Your task to perform on an android device: Clear the shopping cart on walmart.com. Image 0: 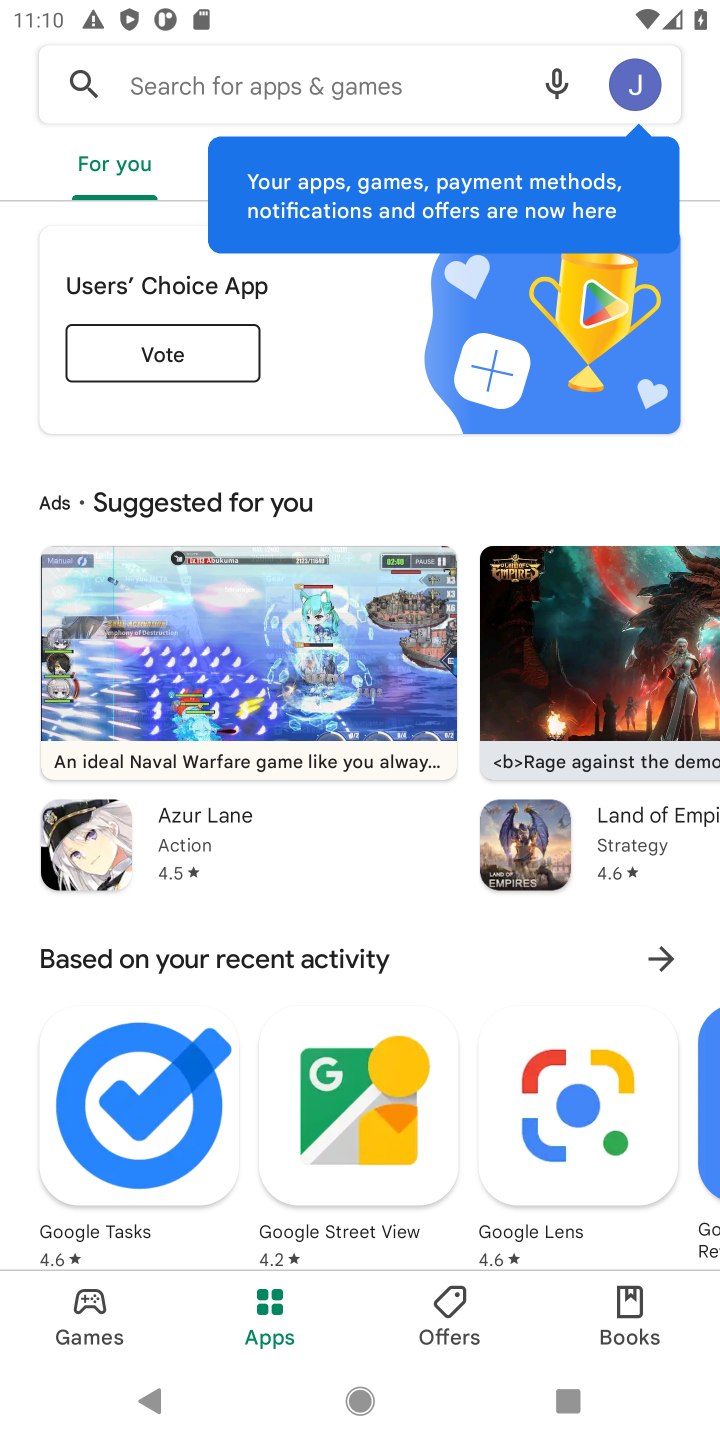
Step 0: press home button
Your task to perform on an android device: Clear the shopping cart on walmart.com. Image 1: 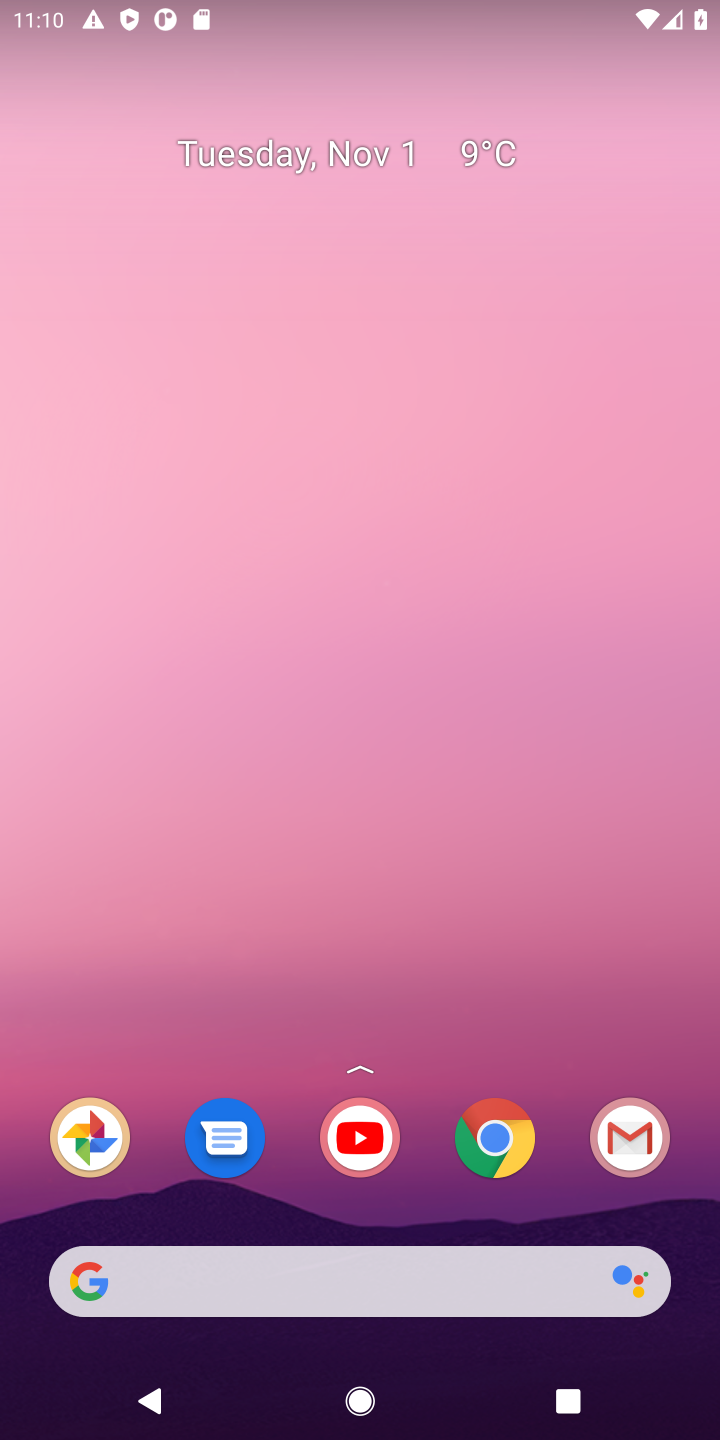
Step 1: click (221, 1270)
Your task to perform on an android device: Clear the shopping cart on walmart.com. Image 2: 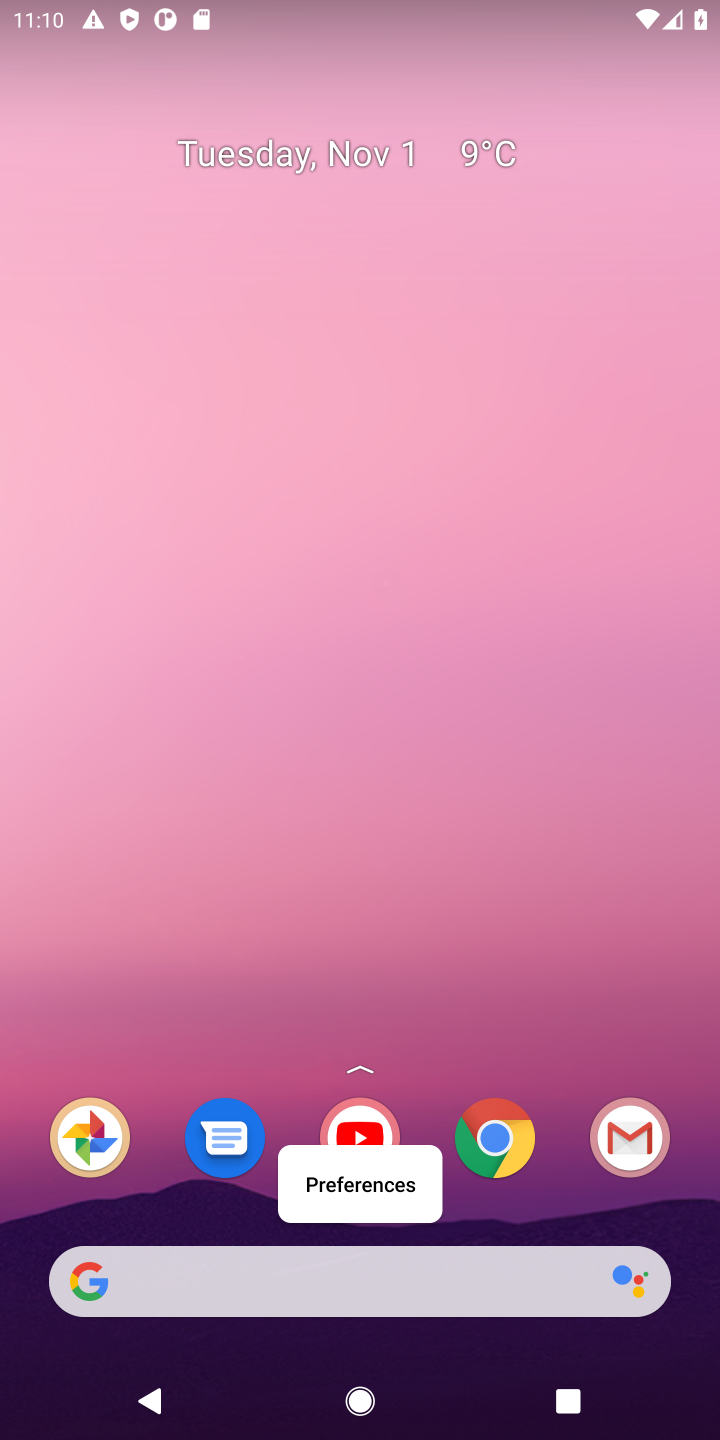
Step 2: click (387, 1285)
Your task to perform on an android device: Clear the shopping cart on walmart.com. Image 3: 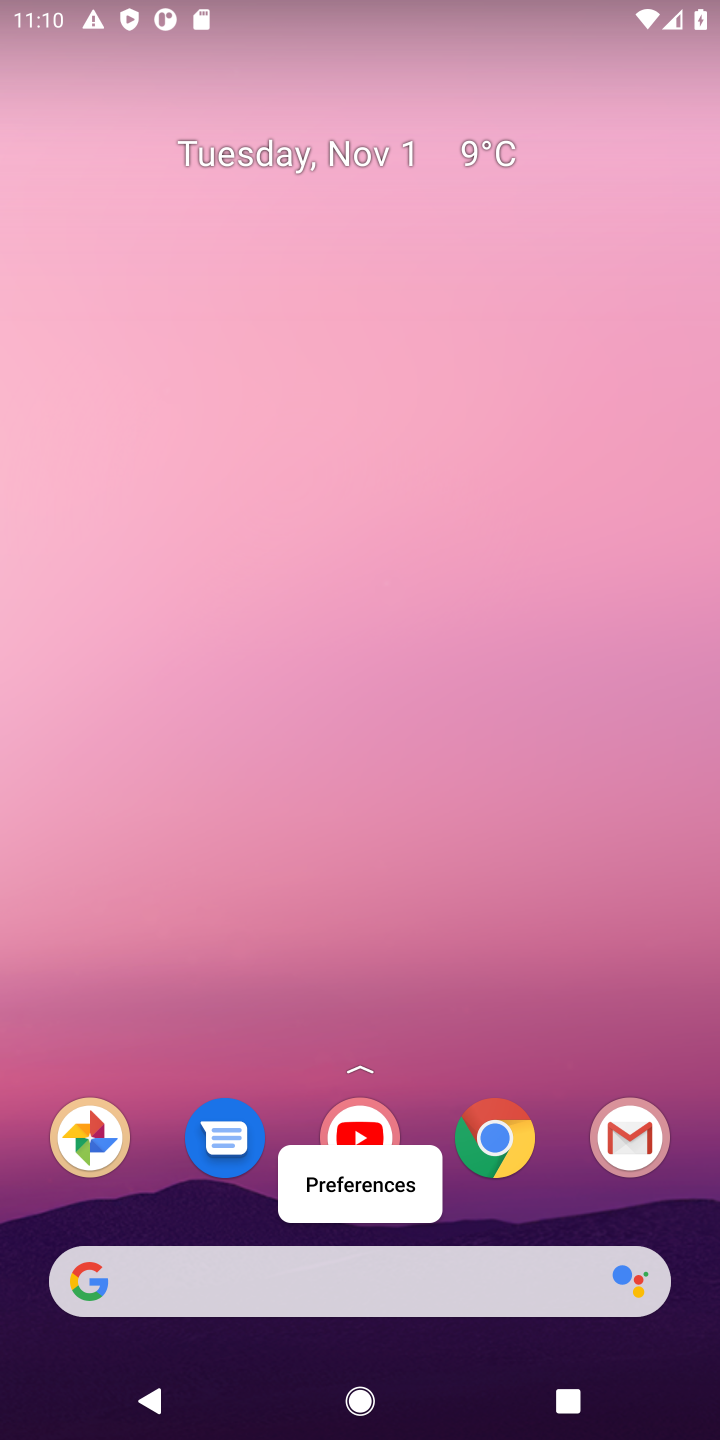
Step 3: click (296, 1276)
Your task to perform on an android device: Clear the shopping cart on walmart.com. Image 4: 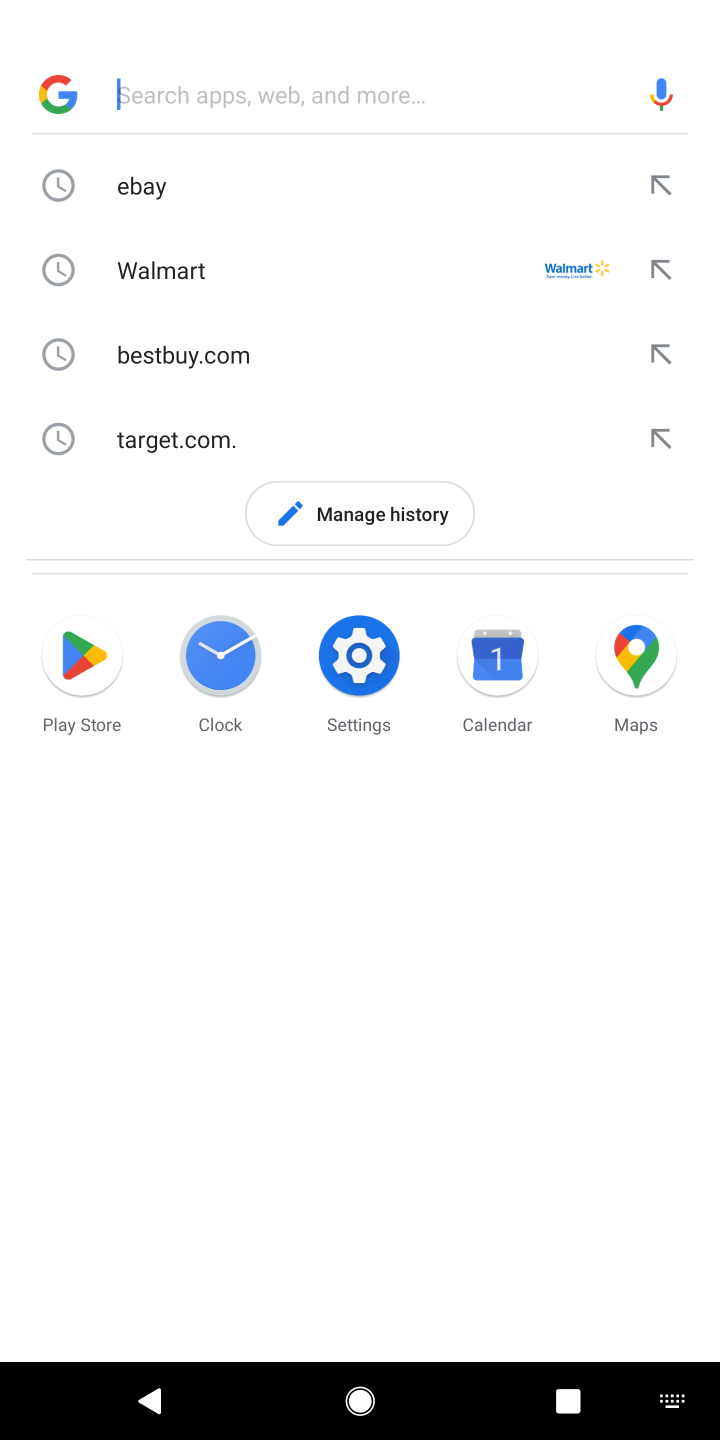
Step 4: type "walmart.com"
Your task to perform on an android device: Clear the shopping cart on walmart.com. Image 5: 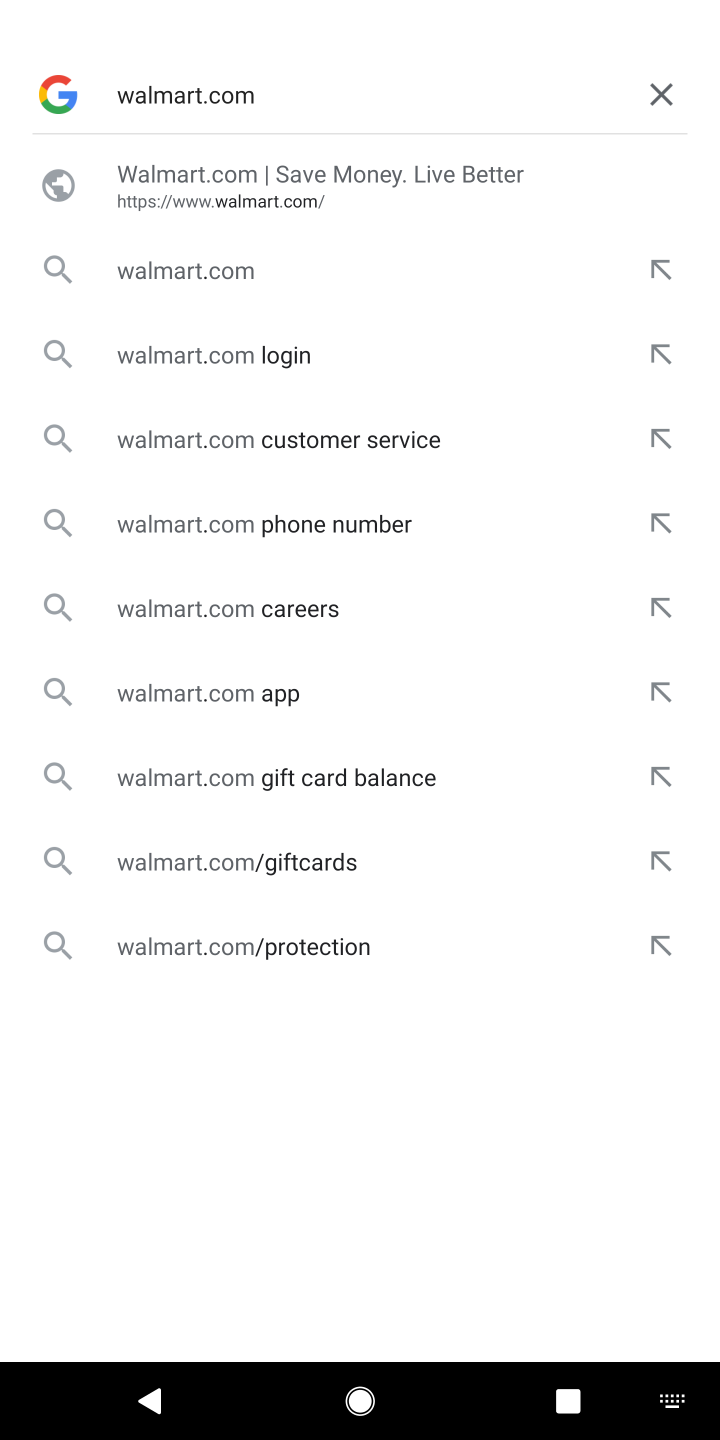
Step 5: type ""
Your task to perform on an android device: Clear the shopping cart on walmart.com. Image 6: 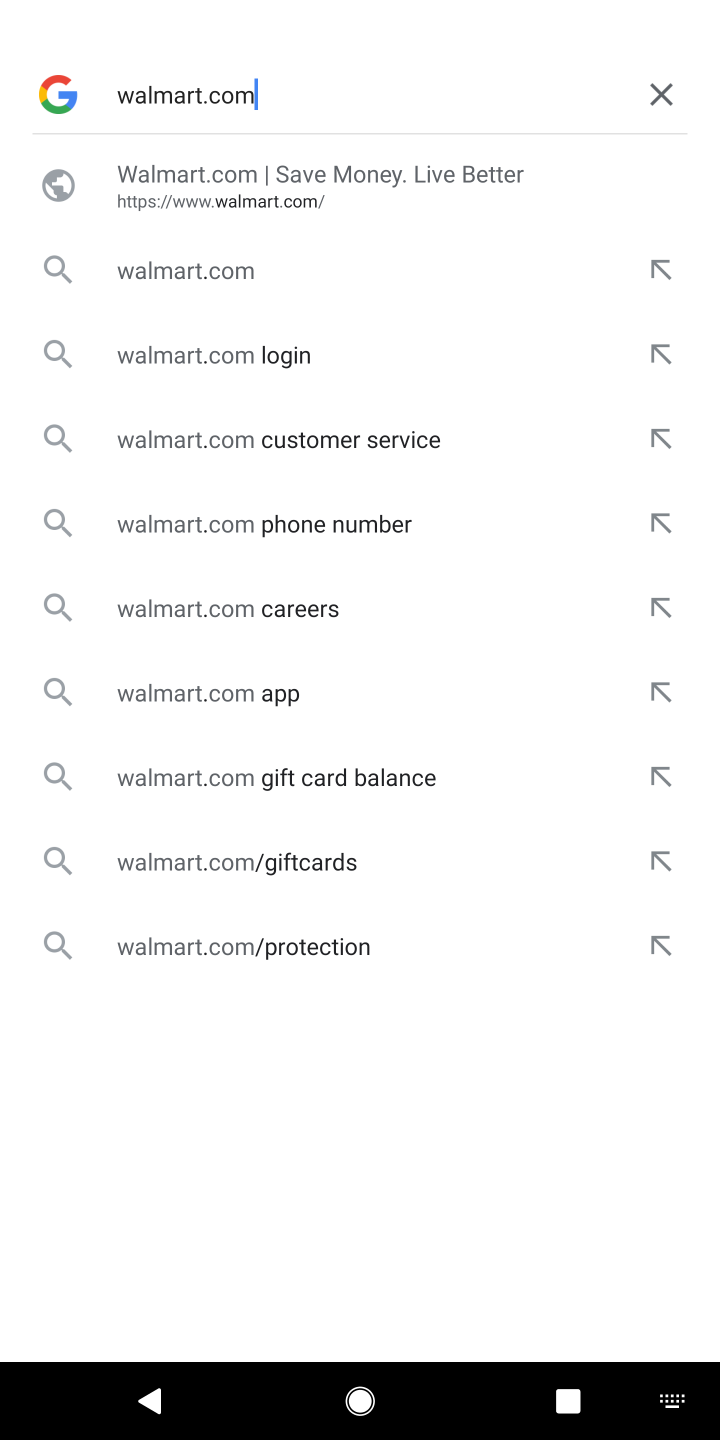
Step 6: click (241, 204)
Your task to perform on an android device: Clear the shopping cart on walmart.com. Image 7: 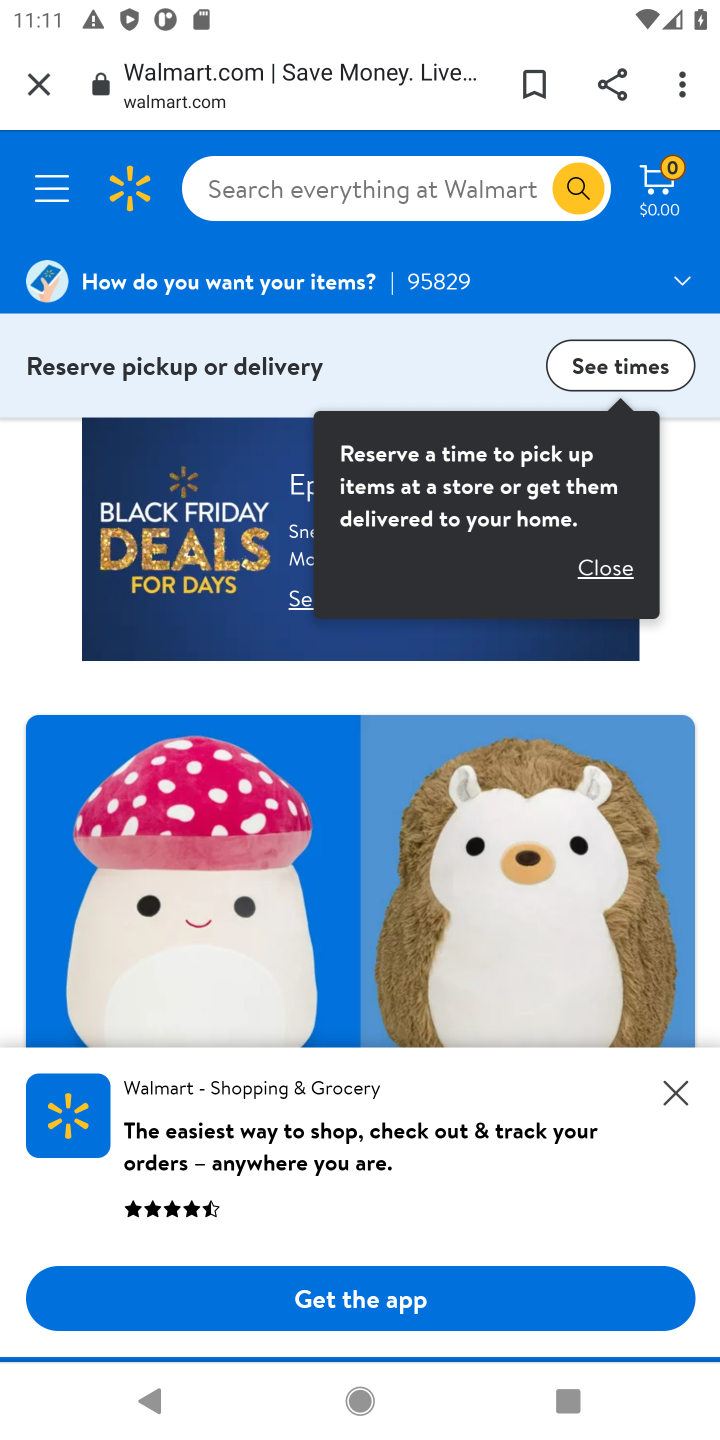
Step 7: click (664, 183)
Your task to perform on an android device: Clear the shopping cart on walmart.com. Image 8: 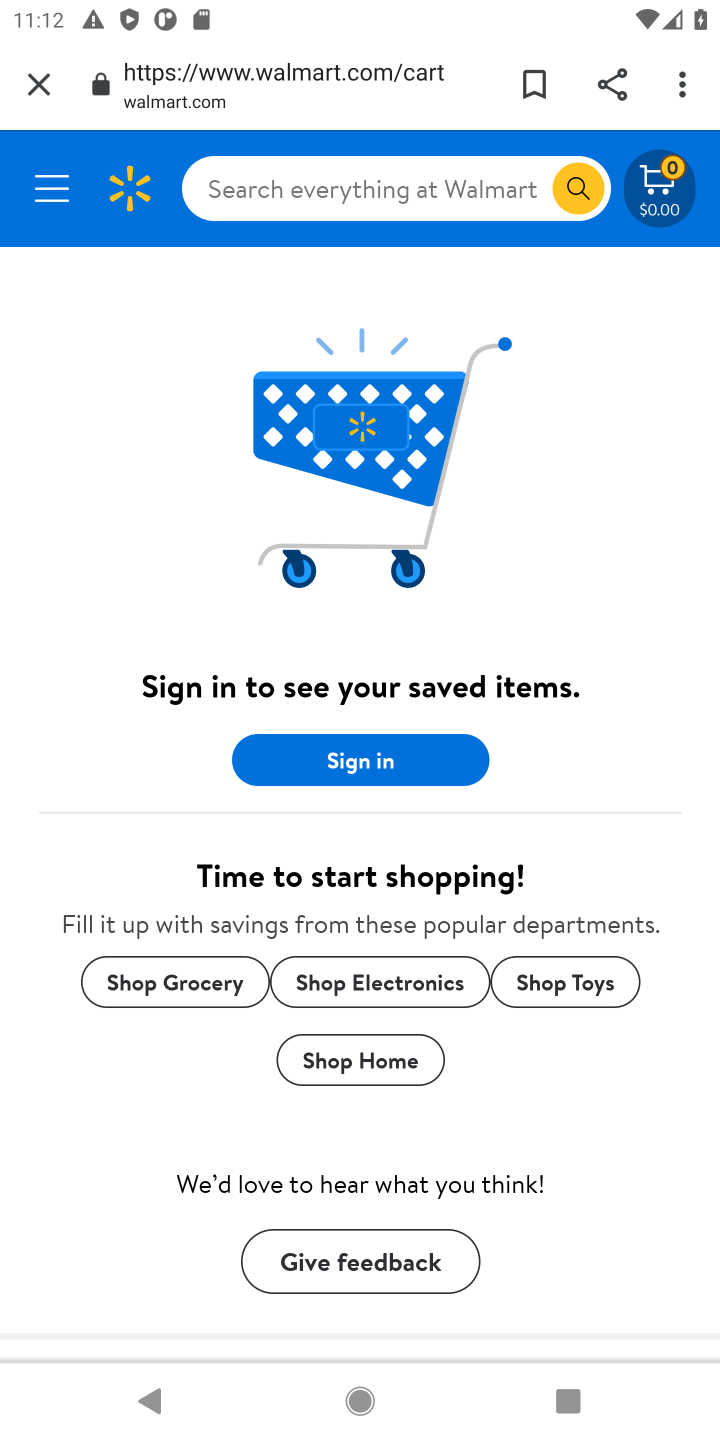
Step 8: task complete